Your task to perform on an android device: turn on sleep mode Image 0: 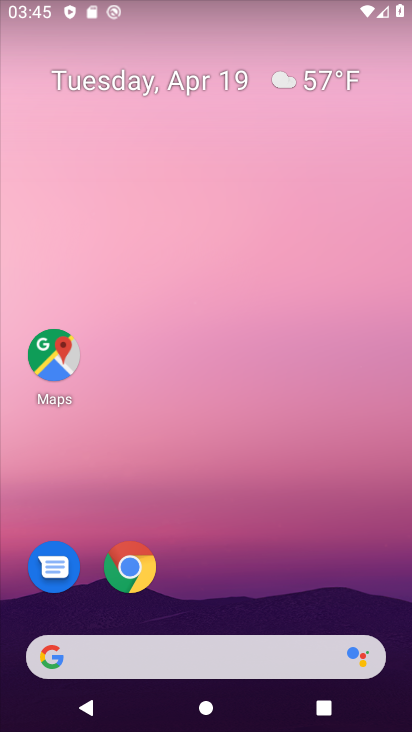
Step 0: drag from (337, 347) to (338, 184)
Your task to perform on an android device: turn on sleep mode Image 1: 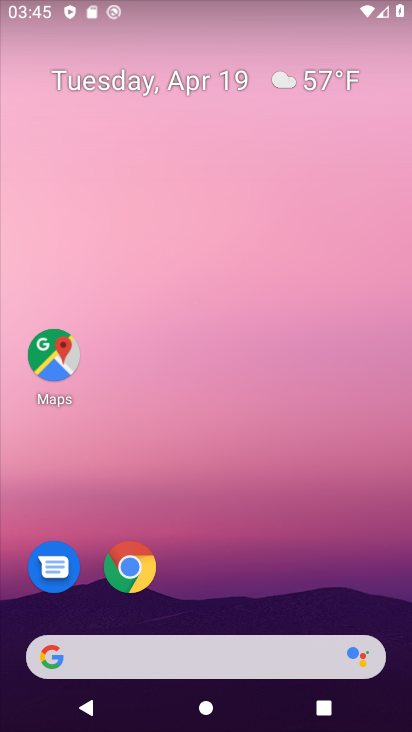
Step 1: drag from (309, 567) to (311, 173)
Your task to perform on an android device: turn on sleep mode Image 2: 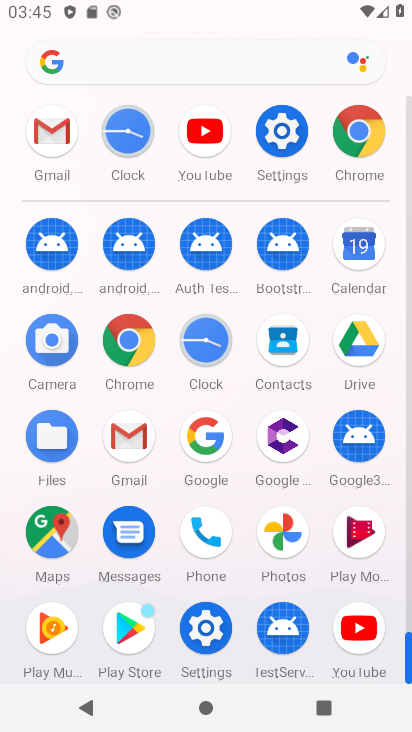
Step 2: click (268, 137)
Your task to perform on an android device: turn on sleep mode Image 3: 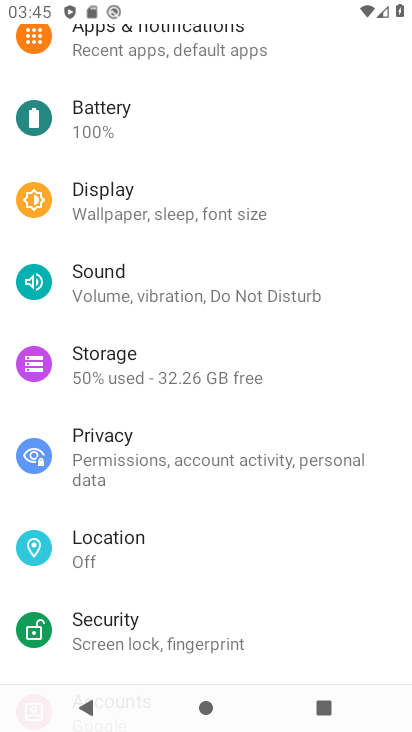
Step 3: drag from (349, 570) to (360, 368)
Your task to perform on an android device: turn on sleep mode Image 4: 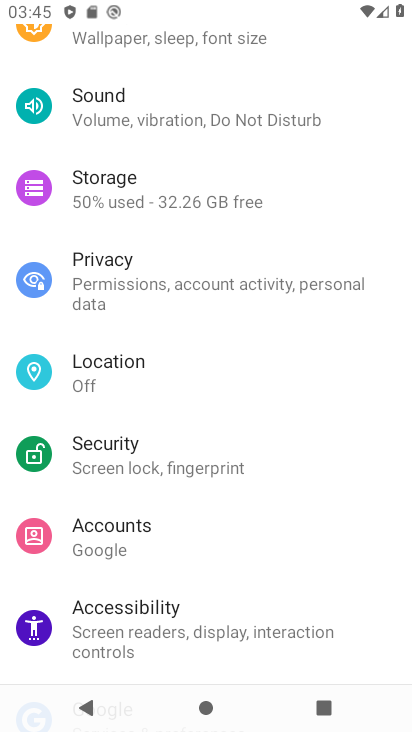
Step 4: drag from (352, 571) to (347, 344)
Your task to perform on an android device: turn on sleep mode Image 5: 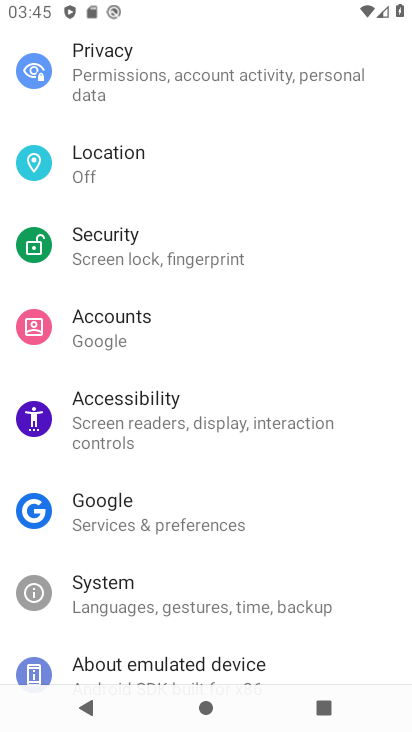
Step 5: drag from (355, 618) to (358, 395)
Your task to perform on an android device: turn on sleep mode Image 6: 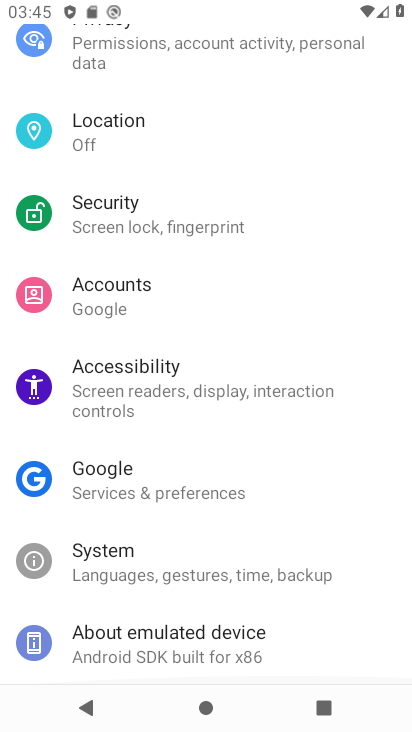
Step 6: drag from (368, 317) to (368, 496)
Your task to perform on an android device: turn on sleep mode Image 7: 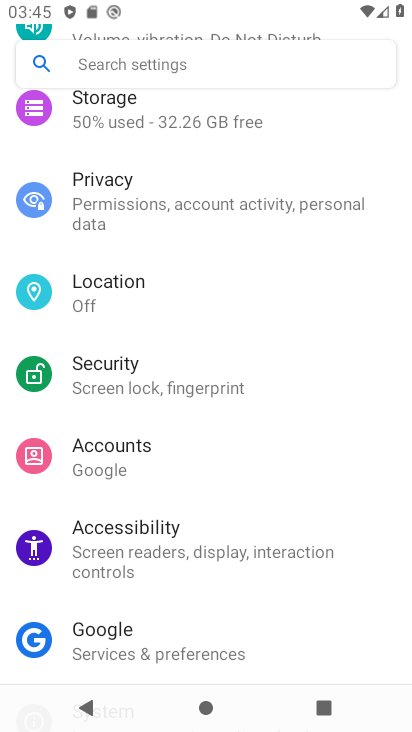
Step 7: drag from (376, 301) to (372, 490)
Your task to perform on an android device: turn on sleep mode Image 8: 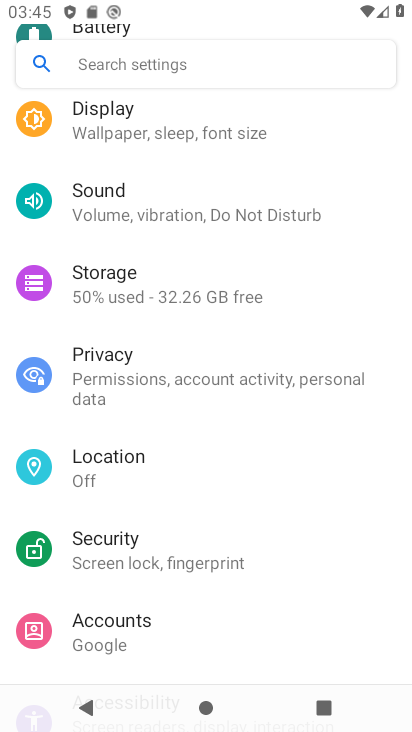
Step 8: drag from (354, 258) to (333, 515)
Your task to perform on an android device: turn on sleep mode Image 9: 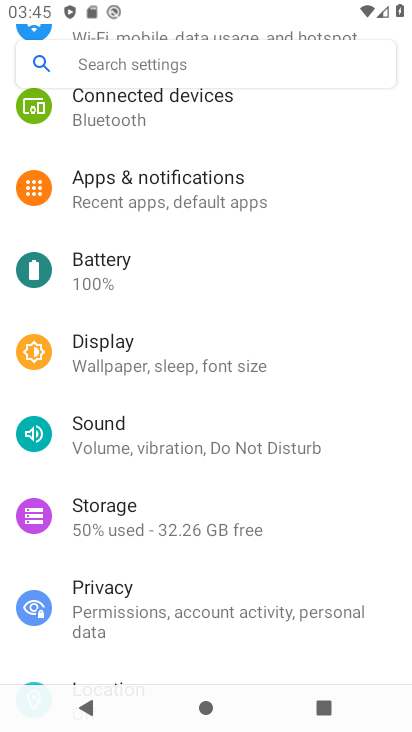
Step 9: click (140, 349)
Your task to perform on an android device: turn on sleep mode Image 10: 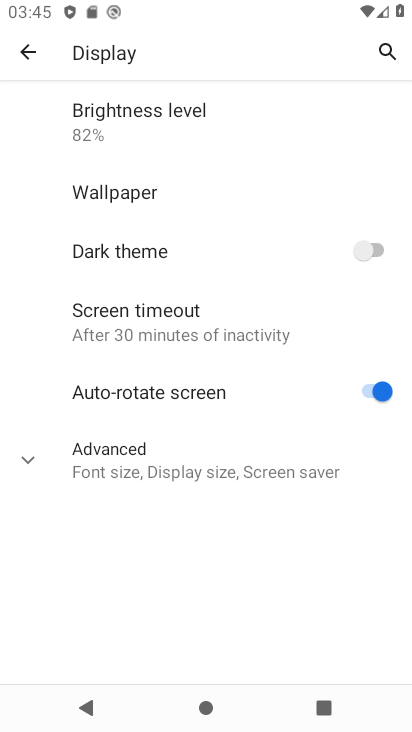
Step 10: click (216, 472)
Your task to perform on an android device: turn on sleep mode Image 11: 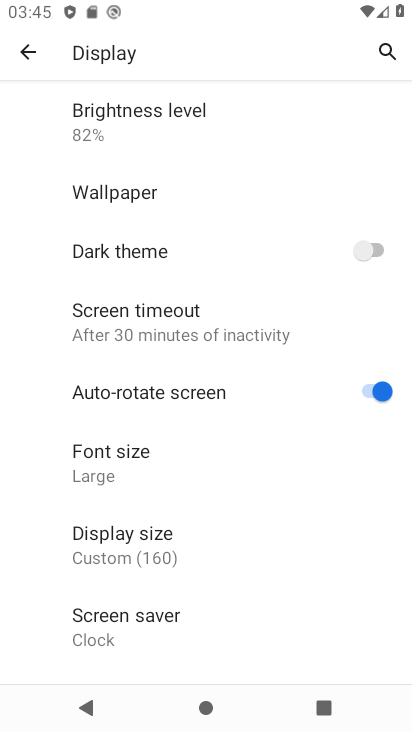
Step 11: task complete